Your task to perform on an android device: change text size in settings app Image 0: 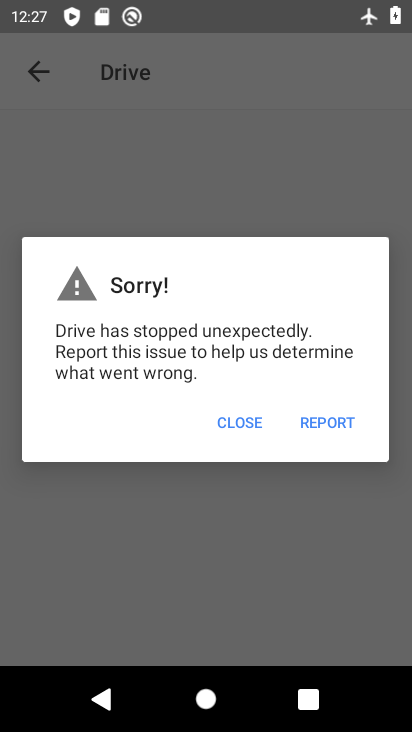
Step 0: press home button
Your task to perform on an android device: change text size in settings app Image 1: 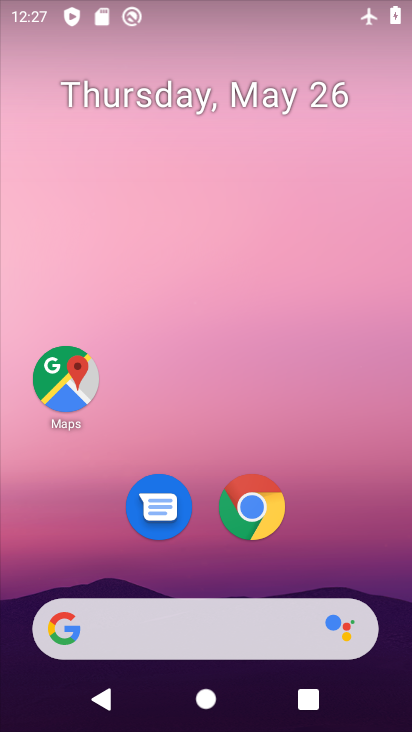
Step 1: drag from (208, 561) to (223, 143)
Your task to perform on an android device: change text size in settings app Image 2: 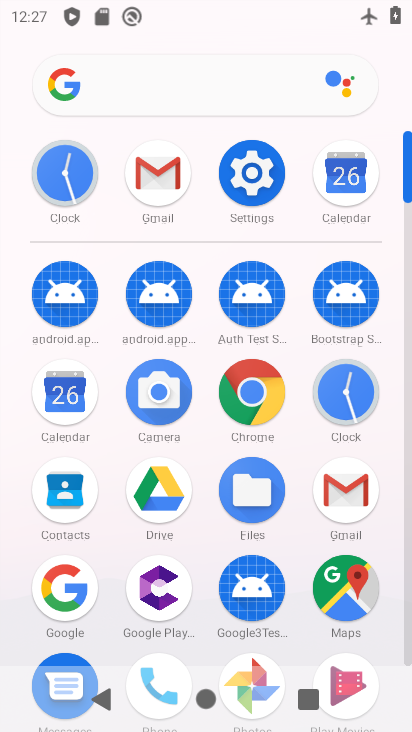
Step 2: click (223, 143)
Your task to perform on an android device: change text size in settings app Image 3: 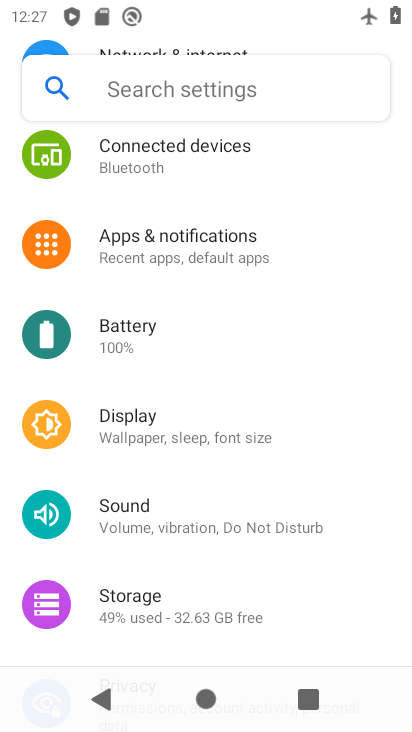
Step 3: drag from (202, 223) to (203, 519)
Your task to perform on an android device: change text size in settings app Image 4: 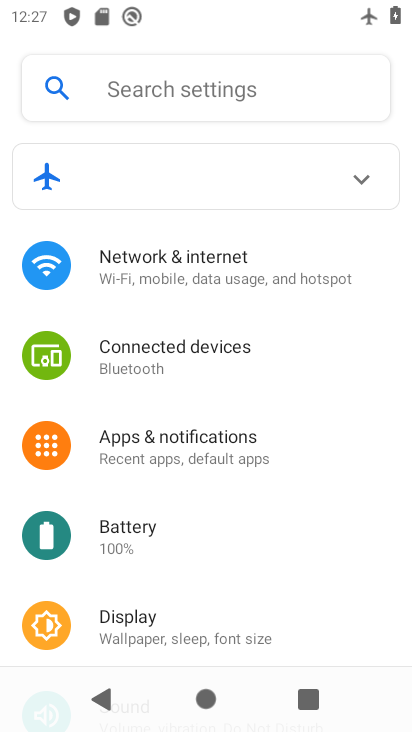
Step 4: click (178, 605)
Your task to perform on an android device: change text size in settings app Image 5: 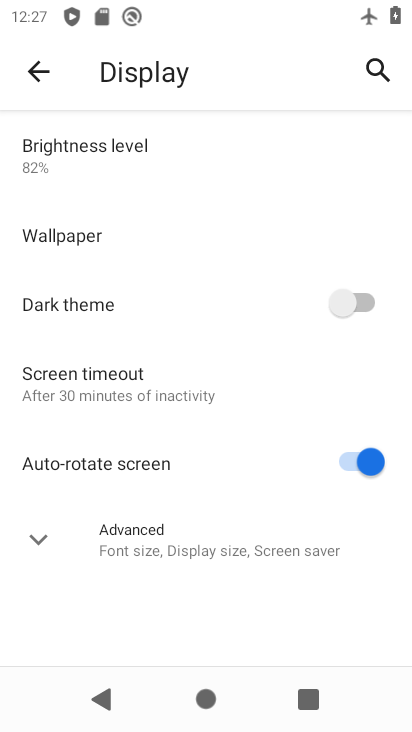
Step 5: click (147, 525)
Your task to perform on an android device: change text size in settings app Image 6: 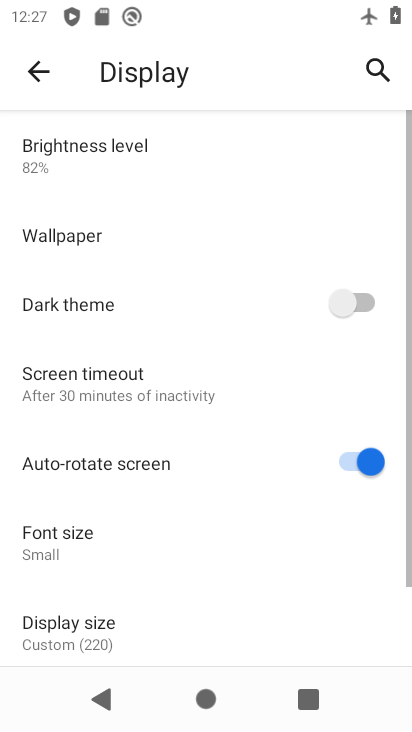
Step 6: click (142, 534)
Your task to perform on an android device: change text size in settings app Image 7: 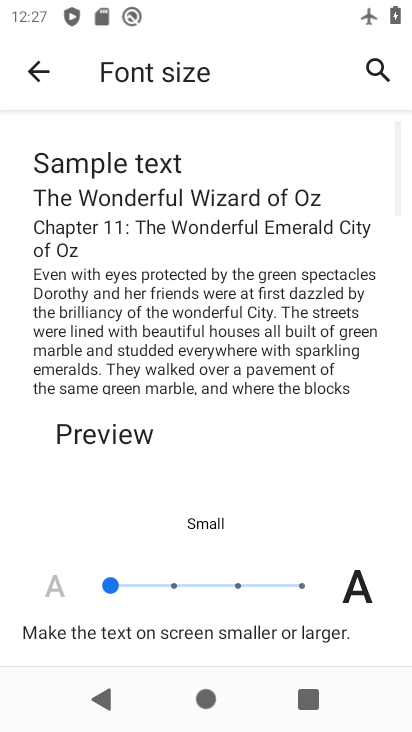
Step 7: click (174, 585)
Your task to perform on an android device: change text size in settings app Image 8: 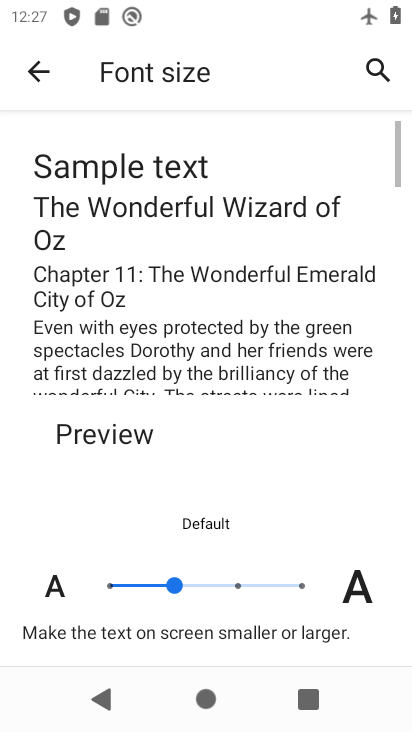
Step 8: task complete